Your task to perform on an android device: toggle data saver in the chrome app Image 0: 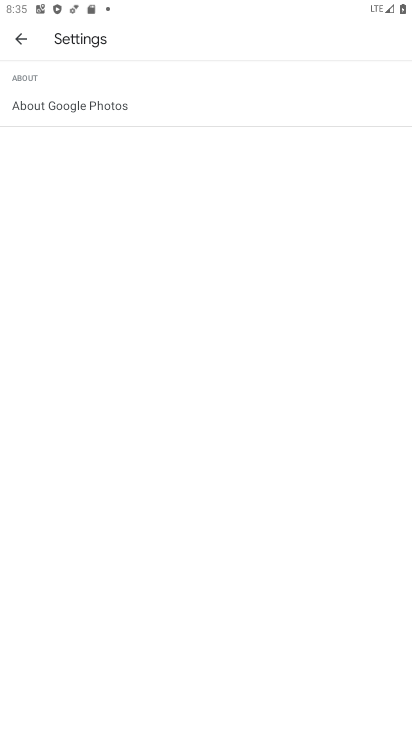
Step 0: press home button
Your task to perform on an android device: toggle data saver in the chrome app Image 1: 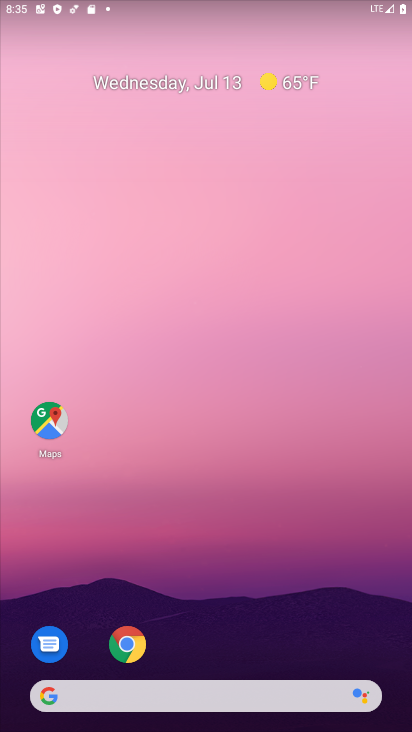
Step 1: drag from (310, 635) to (184, 67)
Your task to perform on an android device: toggle data saver in the chrome app Image 2: 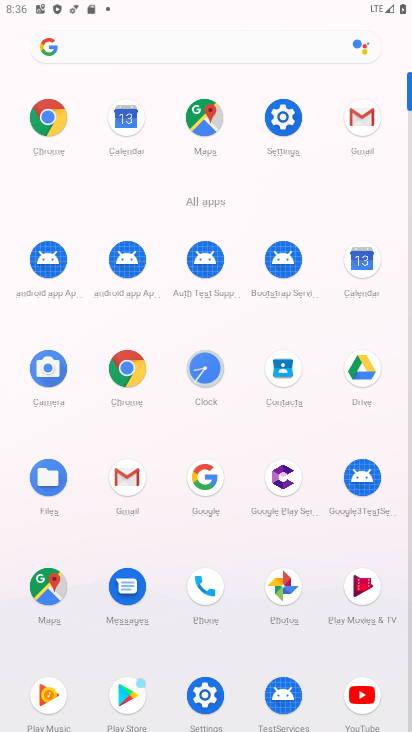
Step 2: click (54, 120)
Your task to perform on an android device: toggle data saver in the chrome app Image 3: 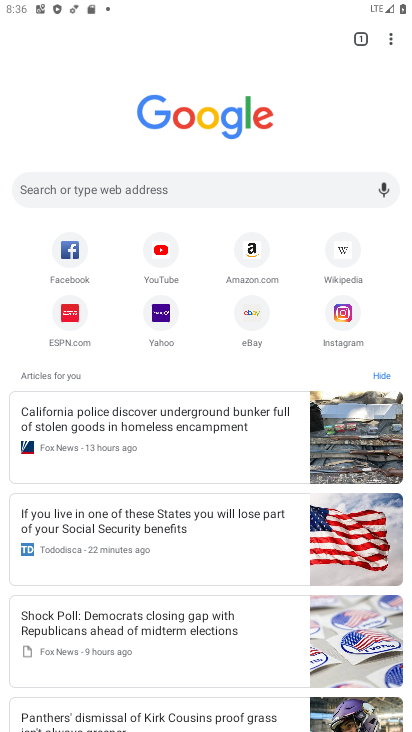
Step 3: drag from (392, 43) to (268, 334)
Your task to perform on an android device: toggle data saver in the chrome app Image 4: 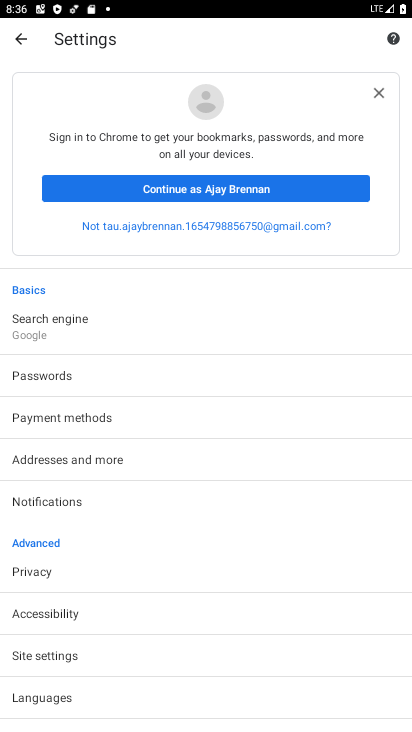
Step 4: drag from (166, 553) to (109, 80)
Your task to perform on an android device: toggle data saver in the chrome app Image 5: 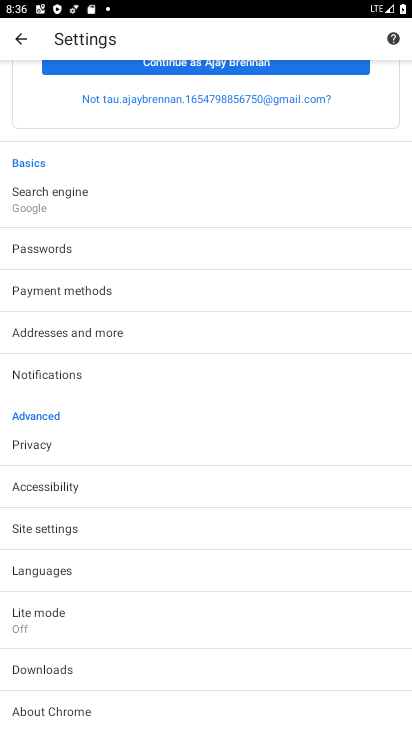
Step 5: click (72, 619)
Your task to perform on an android device: toggle data saver in the chrome app Image 6: 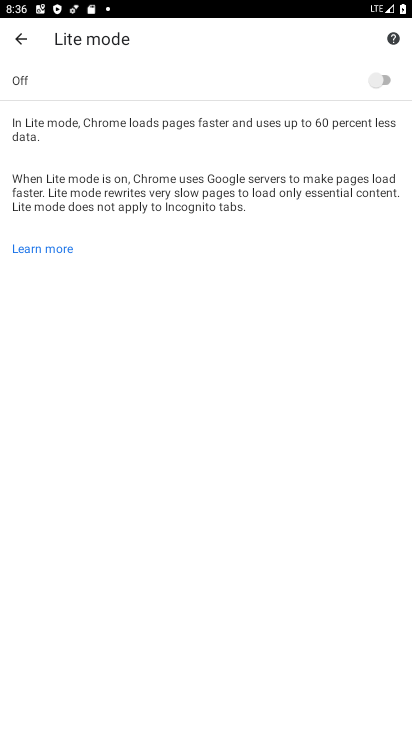
Step 6: click (382, 81)
Your task to perform on an android device: toggle data saver in the chrome app Image 7: 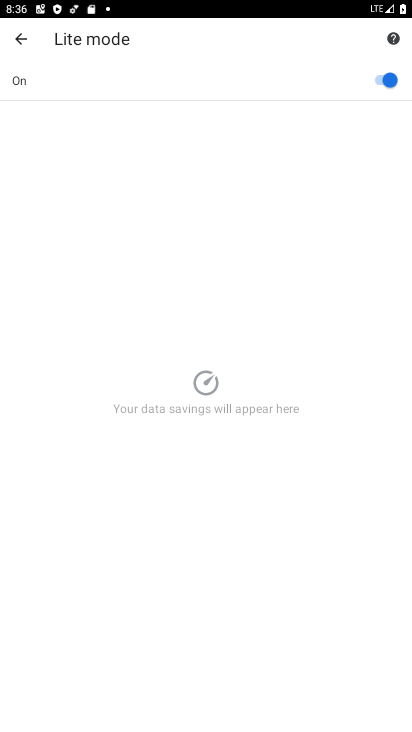
Step 7: task complete